Your task to perform on an android device: Search for vegetarian restaurants on Maps Image 0: 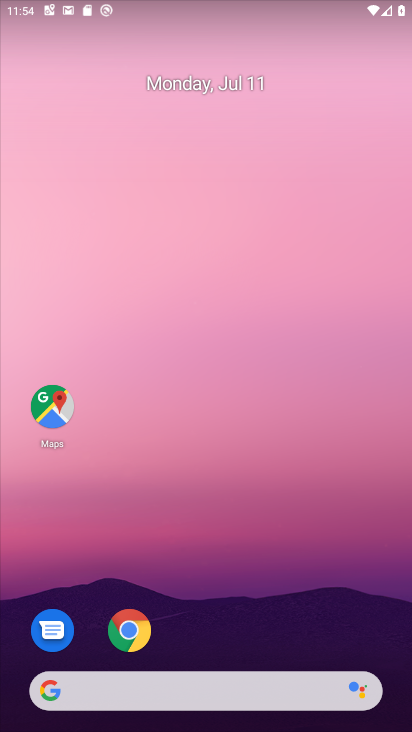
Step 0: drag from (282, 655) to (321, 103)
Your task to perform on an android device: Search for vegetarian restaurants on Maps Image 1: 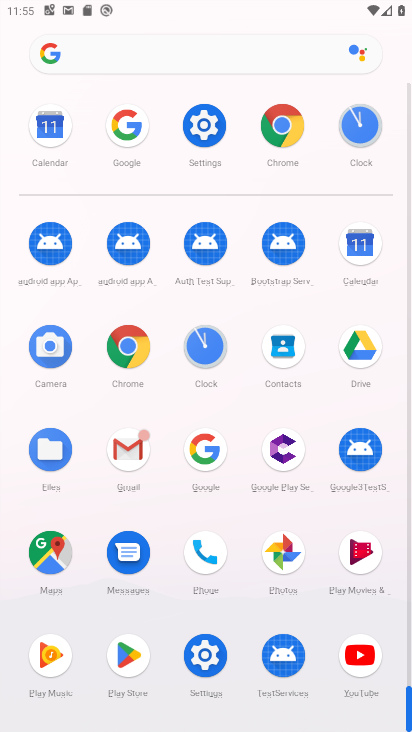
Step 1: click (63, 559)
Your task to perform on an android device: Search for vegetarian restaurants on Maps Image 2: 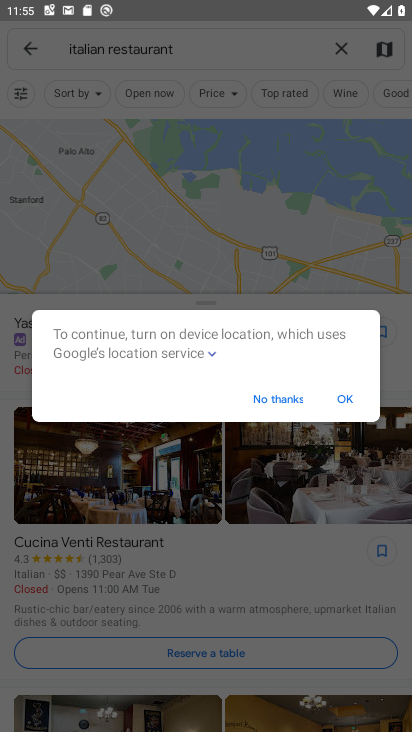
Step 2: click (351, 403)
Your task to perform on an android device: Search for vegetarian restaurants on Maps Image 3: 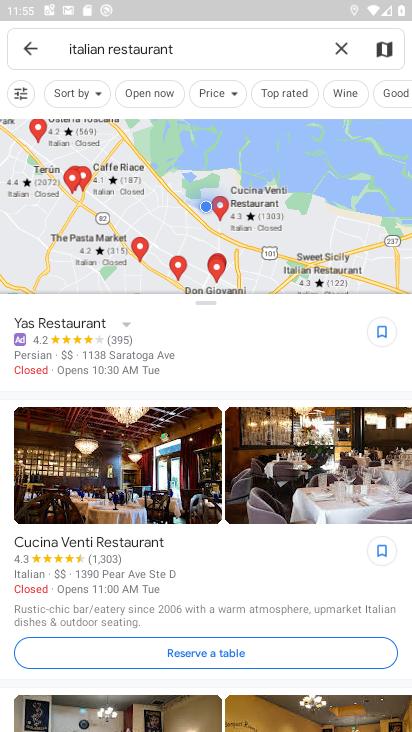
Step 3: click (345, 49)
Your task to perform on an android device: Search for vegetarian restaurants on Maps Image 4: 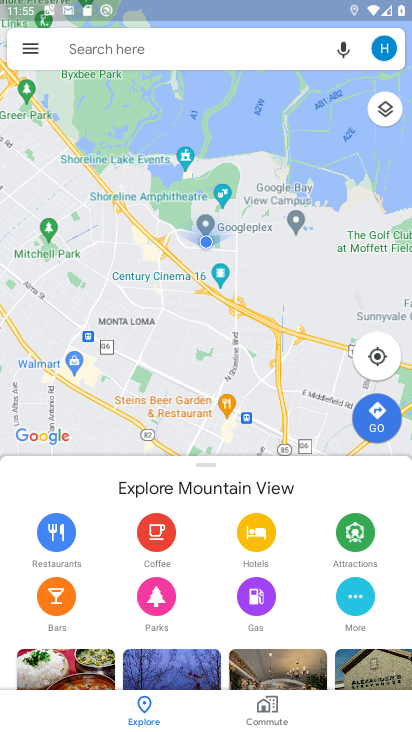
Step 4: click (282, 58)
Your task to perform on an android device: Search for vegetarian restaurants on Maps Image 5: 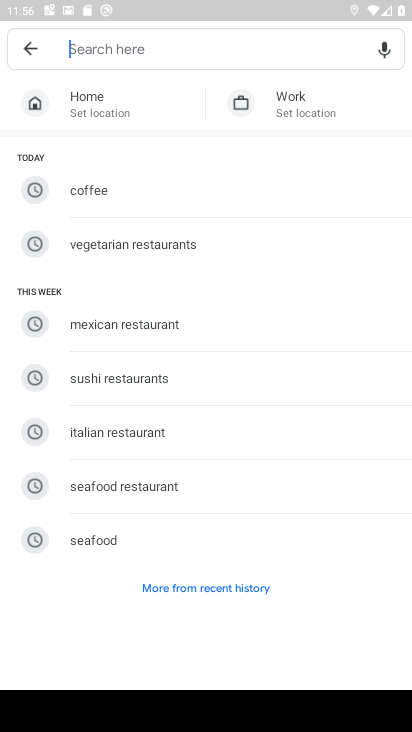
Step 5: click (177, 249)
Your task to perform on an android device: Search for vegetarian restaurants on Maps Image 6: 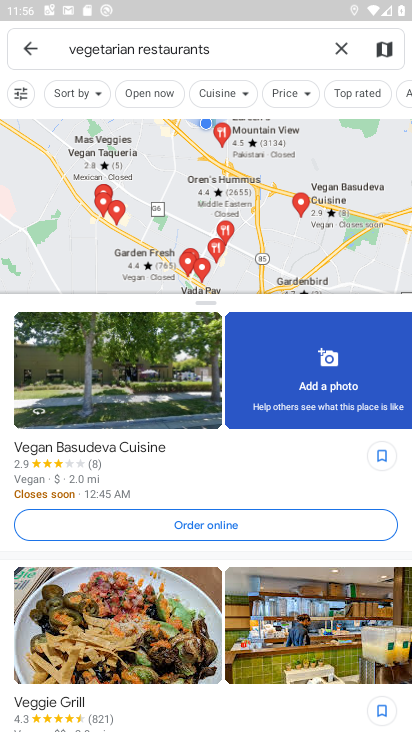
Step 6: task complete